Your task to perform on an android device: Is it going to rain today? Image 0: 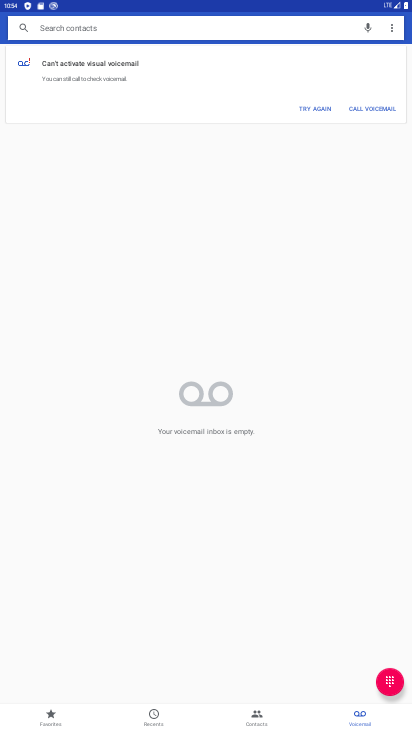
Step 0: press home button
Your task to perform on an android device: Is it going to rain today? Image 1: 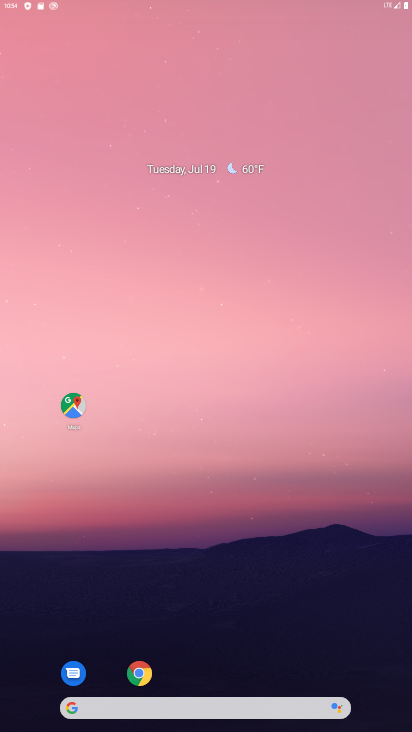
Step 1: drag from (201, 674) to (237, 63)
Your task to perform on an android device: Is it going to rain today? Image 2: 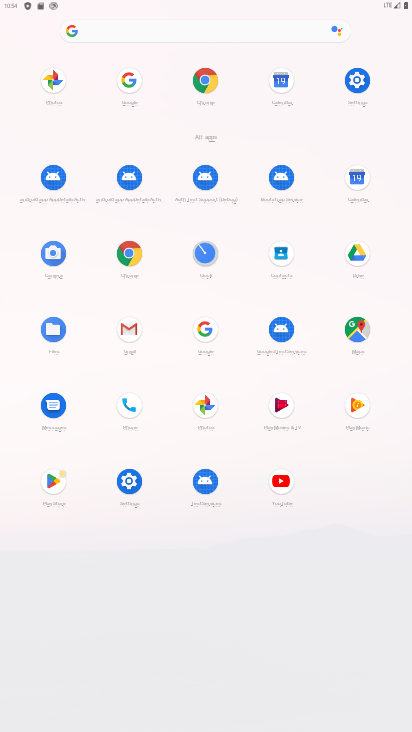
Step 2: click (128, 76)
Your task to perform on an android device: Is it going to rain today? Image 3: 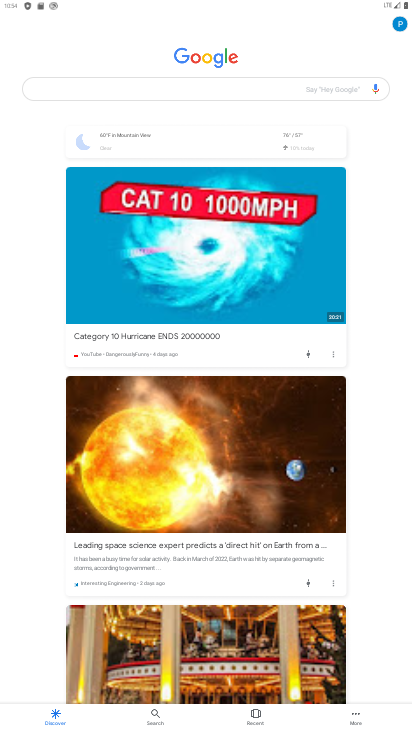
Step 3: click (188, 86)
Your task to perform on an android device: Is it going to rain today? Image 4: 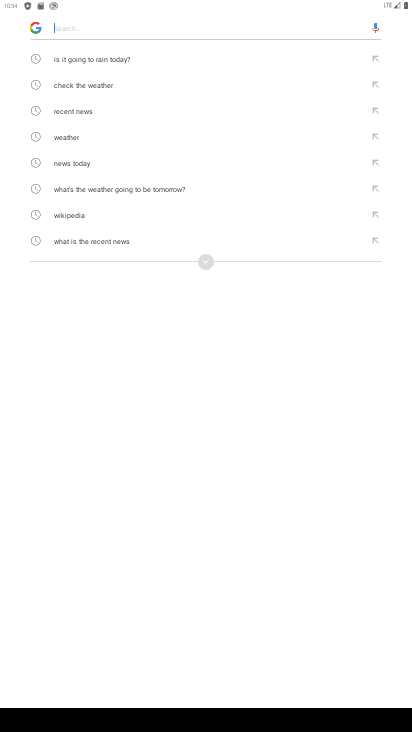
Step 4: click (117, 61)
Your task to perform on an android device: Is it going to rain today? Image 5: 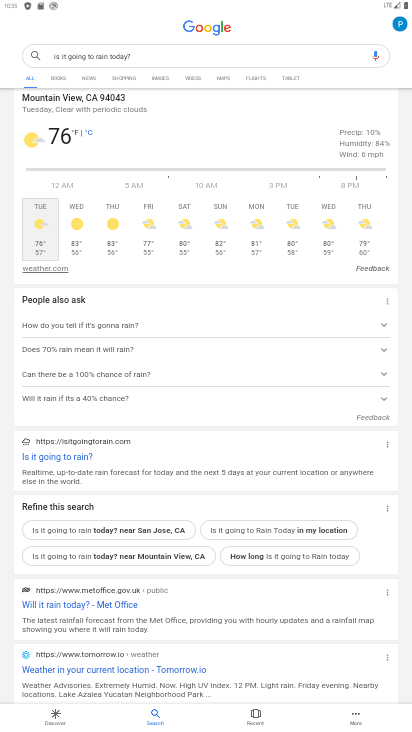
Step 5: task complete